Your task to perform on an android device: empty trash in google photos Image 0: 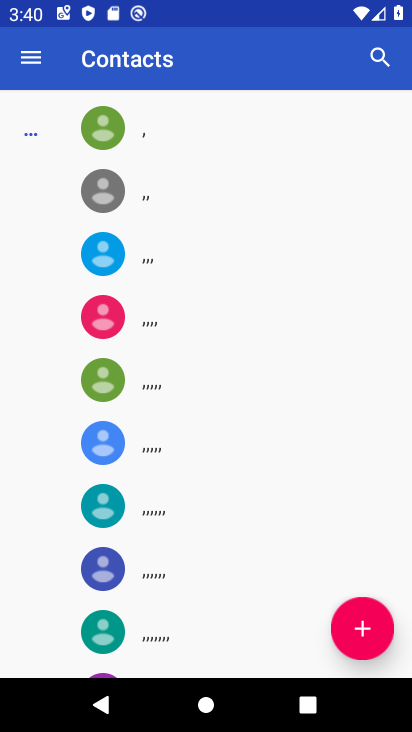
Step 0: press home button
Your task to perform on an android device: empty trash in google photos Image 1: 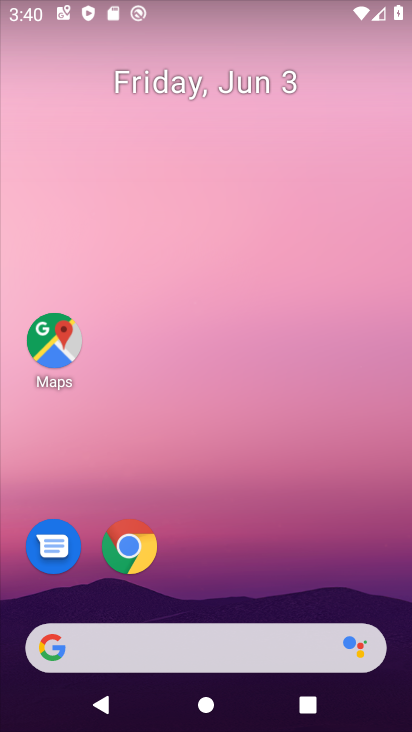
Step 1: drag from (238, 567) to (231, 59)
Your task to perform on an android device: empty trash in google photos Image 2: 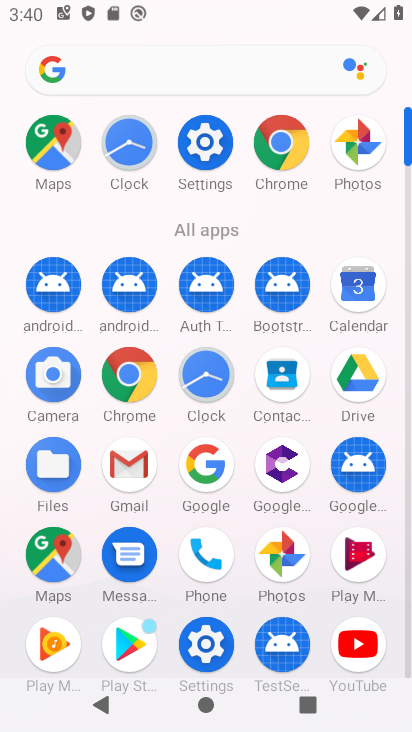
Step 2: click (361, 156)
Your task to perform on an android device: empty trash in google photos Image 3: 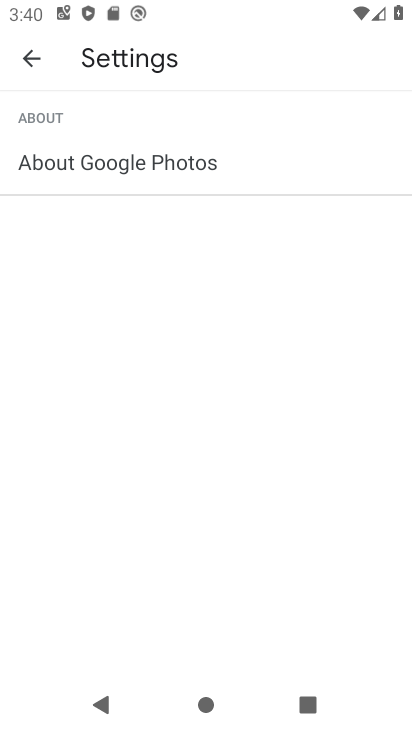
Step 3: click (28, 50)
Your task to perform on an android device: empty trash in google photos Image 4: 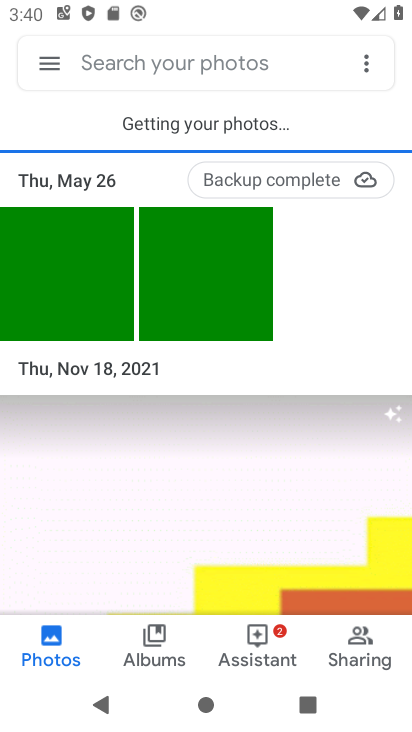
Step 4: click (41, 54)
Your task to perform on an android device: empty trash in google photos Image 5: 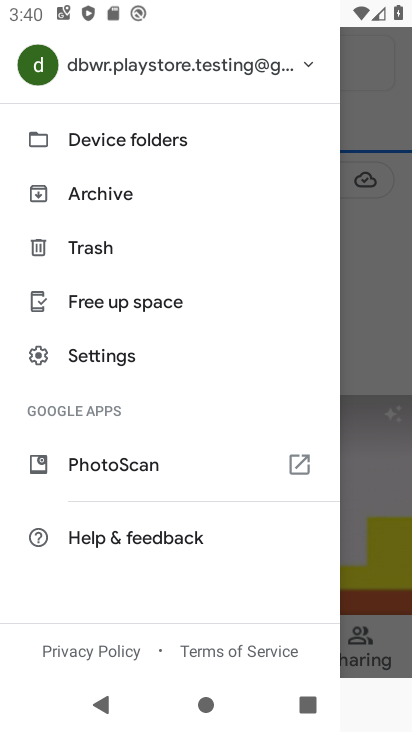
Step 5: click (99, 242)
Your task to perform on an android device: empty trash in google photos Image 6: 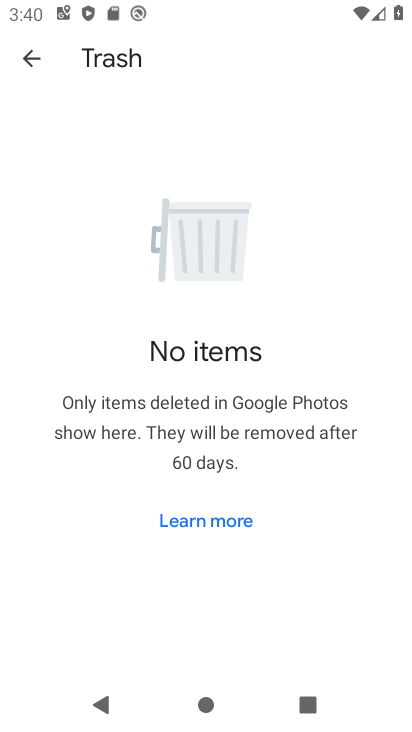
Step 6: task complete